Your task to perform on an android device: Open accessibility settings Image 0: 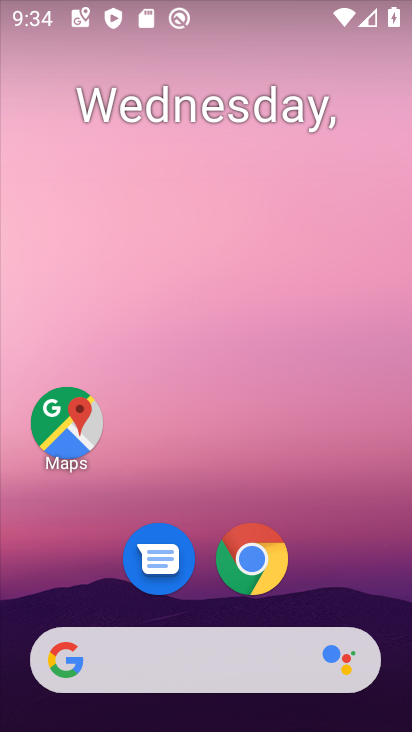
Step 0: drag from (360, 583) to (227, 27)
Your task to perform on an android device: Open accessibility settings Image 1: 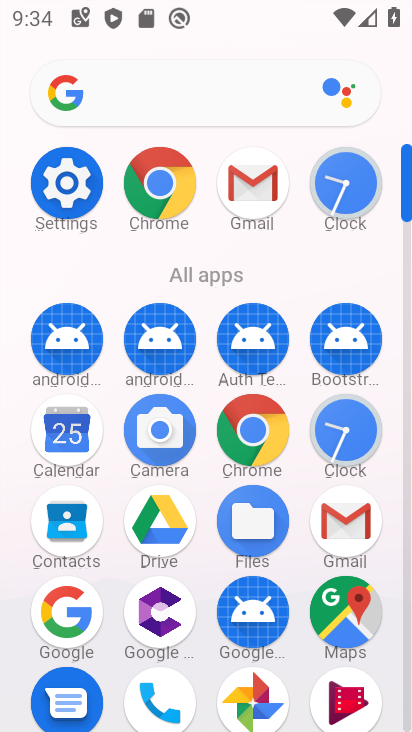
Step 1: click (63, 169)
Your task to perform on an android device: Open accessibility settings Image 2: 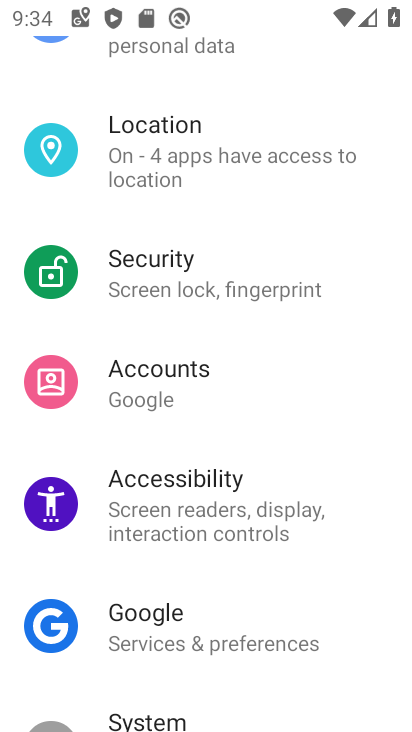
Step 2: click (158, 495)
Your task to perform on an android device: Open accessibility settings Image 3: 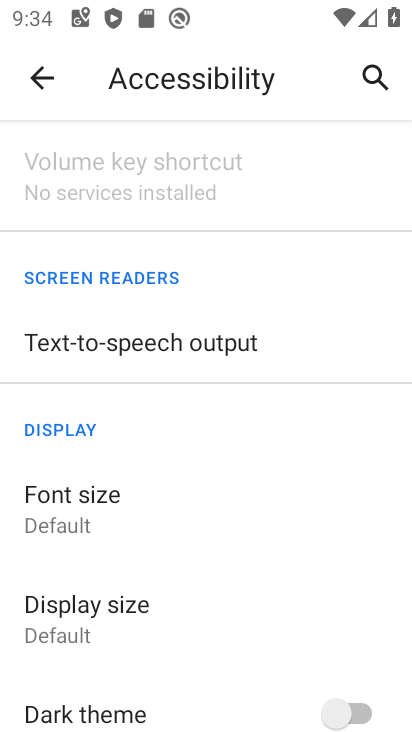
Step 3: task complete